Your task to perform on an android device: turn off airplane mode Image 0: 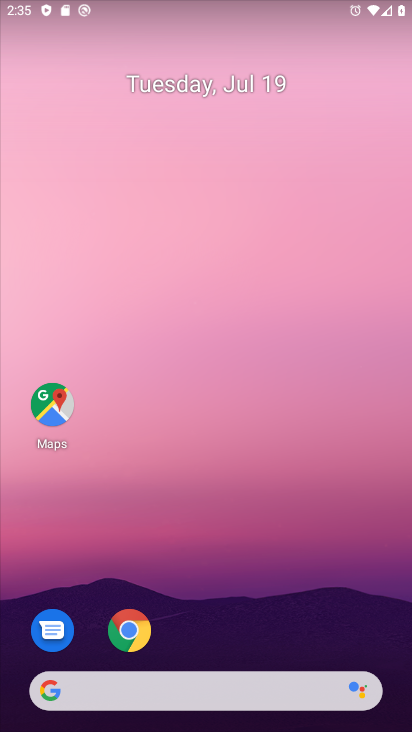
Step 0: drag from (242, 649) to (284, 0)
Your task to perform on an android device: turn off airplane mode Image 1: 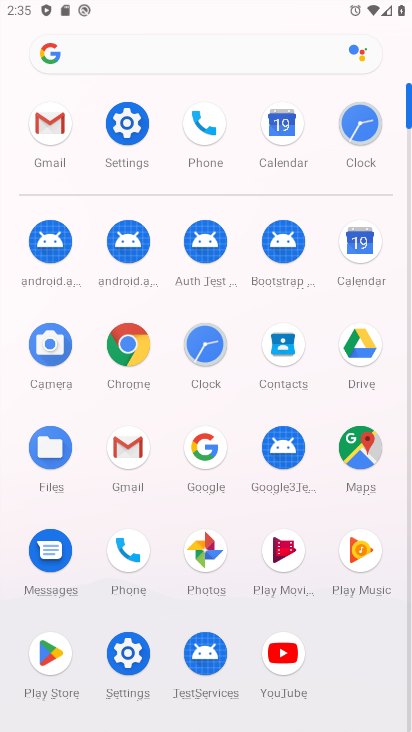
Step 1: click (120, 104)
Your task to perform on an android device: turn off airplane mode Image 2: 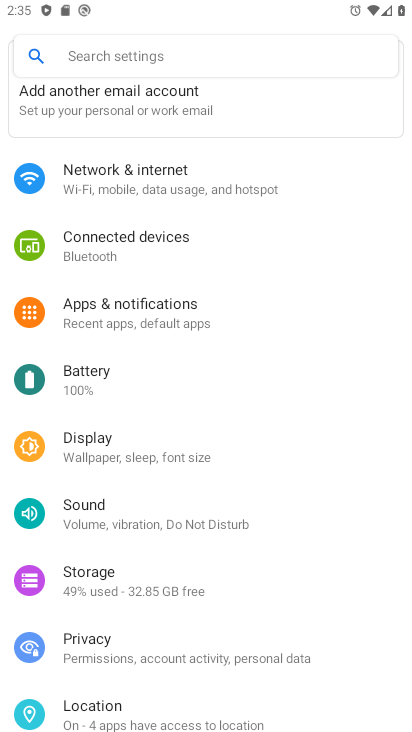
Step 2: click (138, 177)
Your task to perform on an android device: turn off airplane mode Image 3: 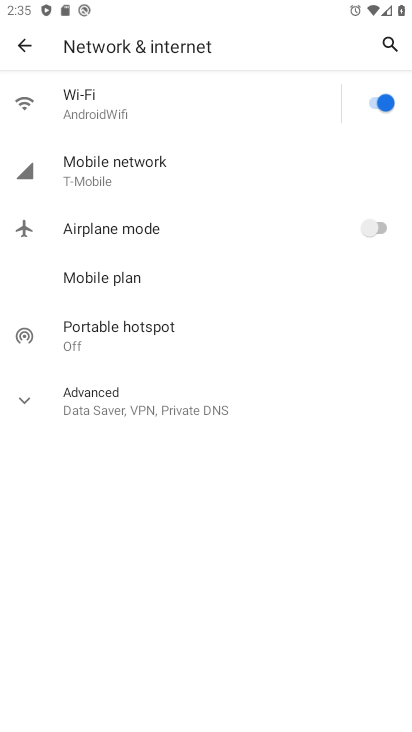
Step 3: task complete